Your task to perform on an android device: Open the calendar app, open the side menu, and click the "Day" option Image 0: 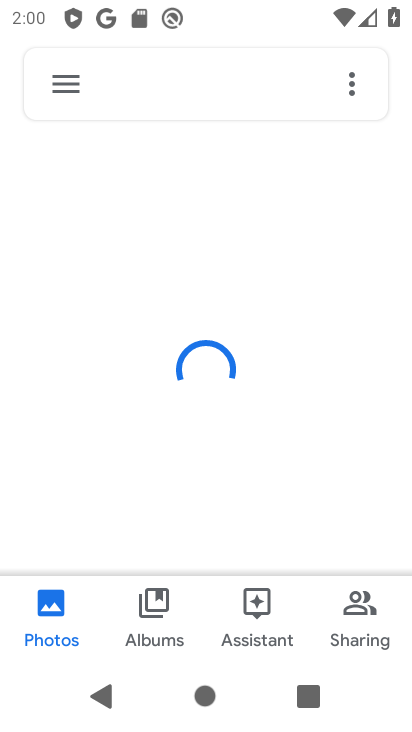
Step 0: press back button
Your task to perform on an android device: Open the calendar app, open the side menu, and click the "Day" option Image 1: 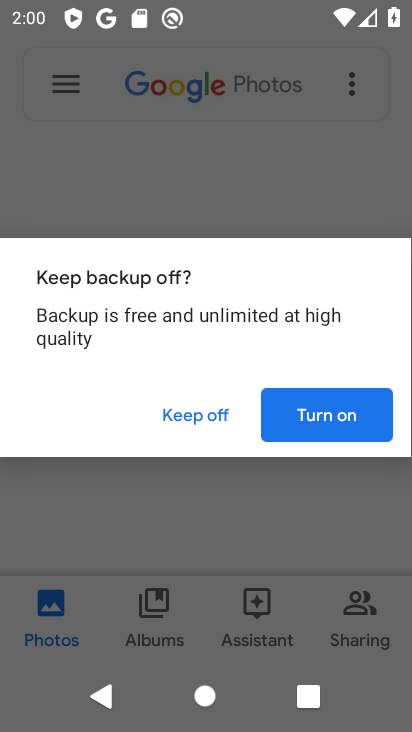
Step 1: press back button
Your task to perform on an android device: Open the calendar app, open the side menu, and click the "Day" option Image 2: 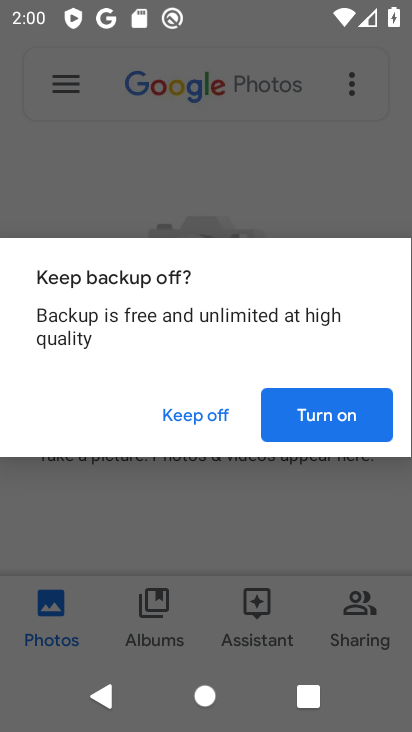
Step 2: press home button
Your task to perform on an android device: Open the calendar app, open the side menu, and click the "Day" option Image 3: 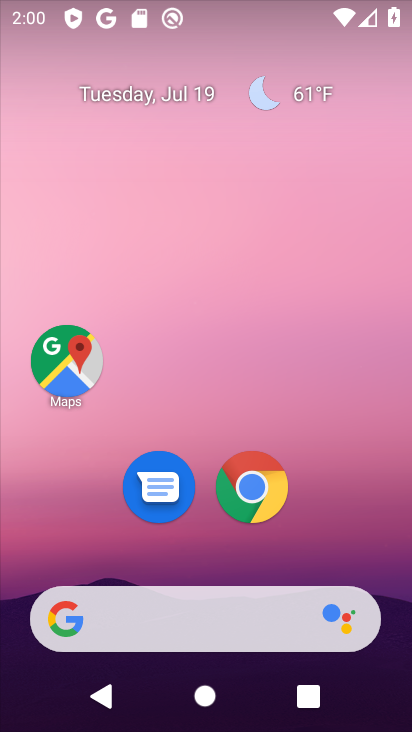
Step 3: drag from (113, 562) to (218, 13)
Your task to perform on an android device: Open the calendar app, open the side menu, and click the "Day" option Image 4: 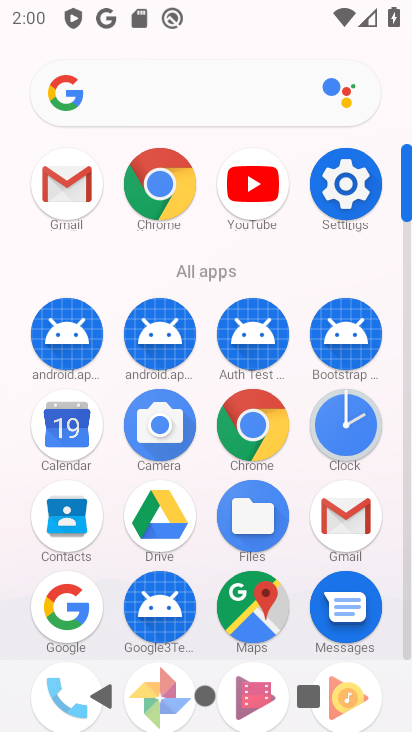
Step 4: click (76, 442)
Your task to perform on an android device: Open the calendar app, open the side menu, and click the "Day" option Image 5: 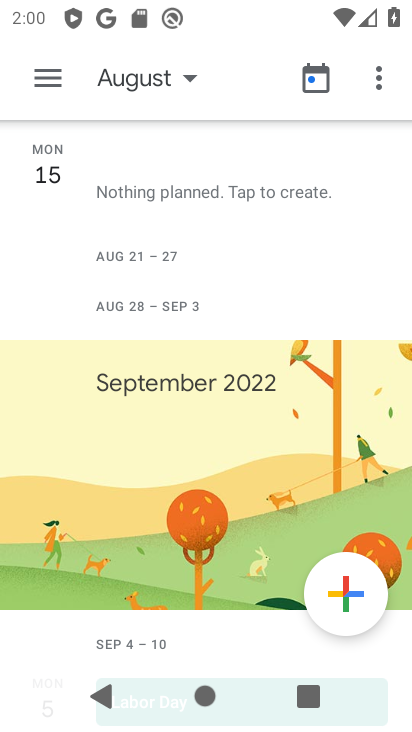
Step 5: click (151, 86)
Your task to perform on an android device: Open the calendar app, open the side menu, and click the "Day" option Image 6: 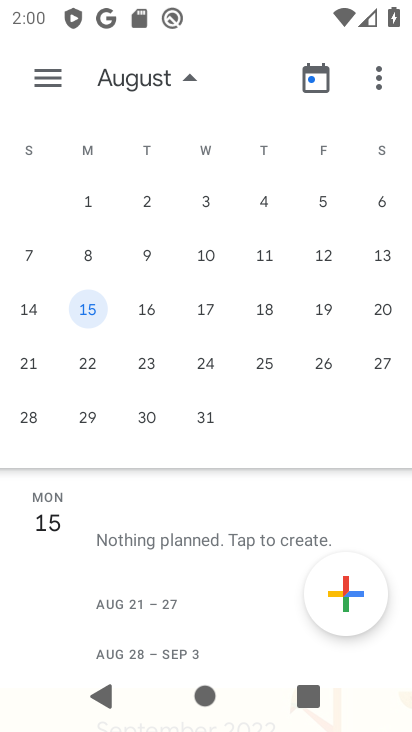
Step 6: drag from (25, 298) to (407, 315)
Your task to perform on an android device: Open the calendar app, open the side menu, and click the "Day" option Image 7: 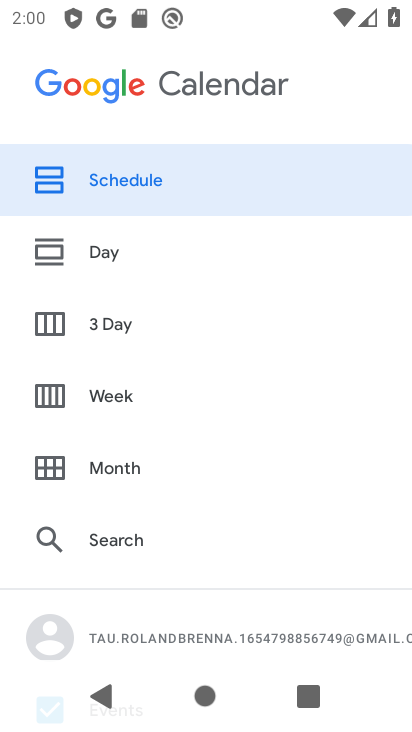
Step 7: drag from (297, 333) to (209, 363)
Your task to perform on an android device: Open the calendar app, open the side menu, and click the "Day" option Image 8: 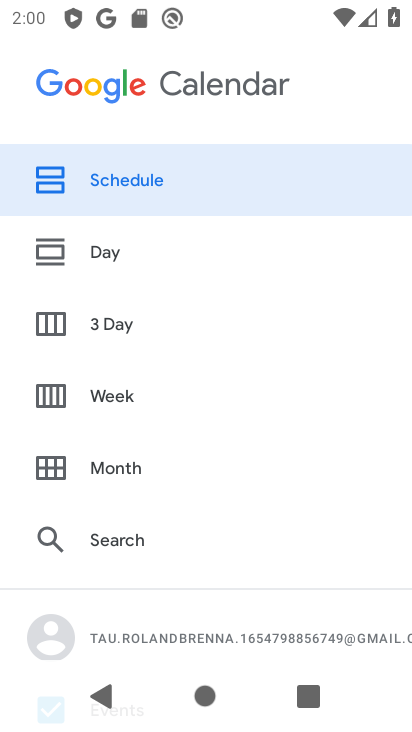
Step 8: click (114, 251)
Your task to perform on an android device: Open the calendar app, open the side menu, and click the "Day" option Image 9: 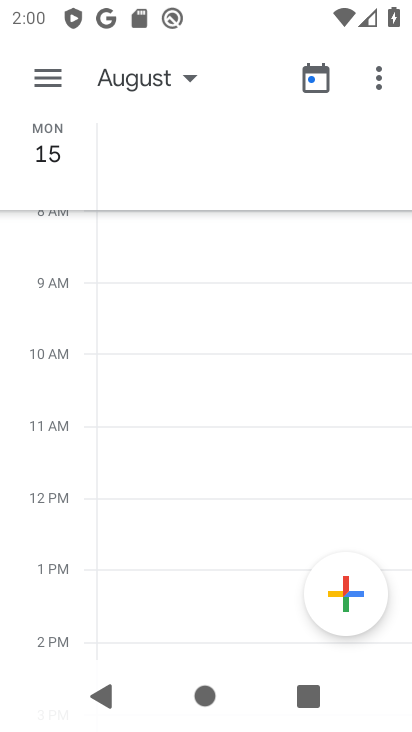
Step 9: task complete